Your task to perform on an android device: manage bookmarks in the chrome app Image 0: 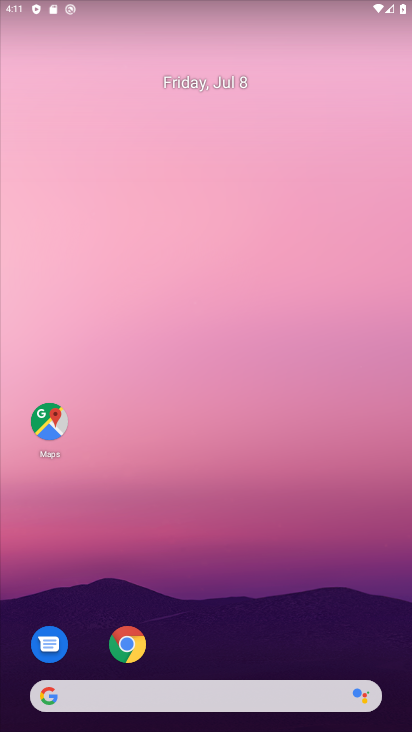
Step 0: click (117, 645)
Your task to perform on an android device: manage bookmarks in the chrome app Image 1: 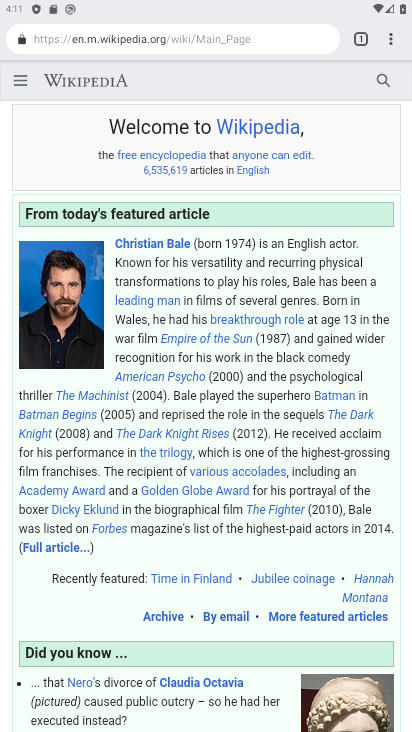
Step 1: click (383, 43)
Your task to perform on an android device: manage bookmarks in the chrome app Image 2: 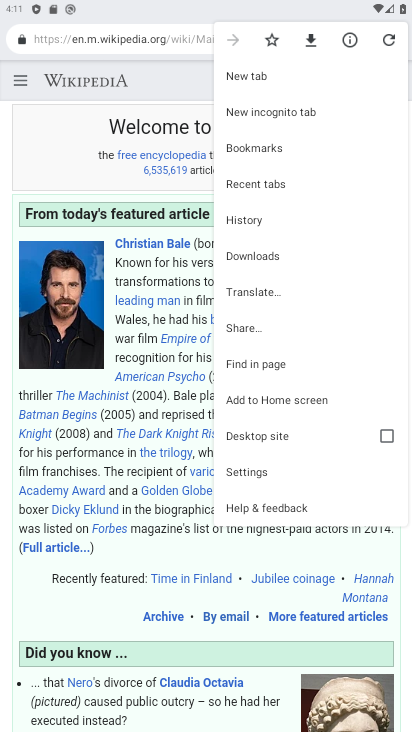
Step 2: click (306, 147)
Your task to perform on an android device: manage bookmarks in the chrome app Image 3: 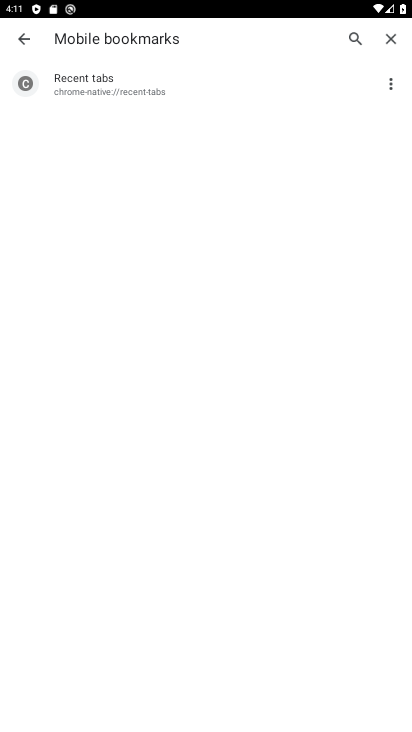
Step 3: task complete